Your task to perform on an android device: Set the phone to "Do not disturb". Image 0: 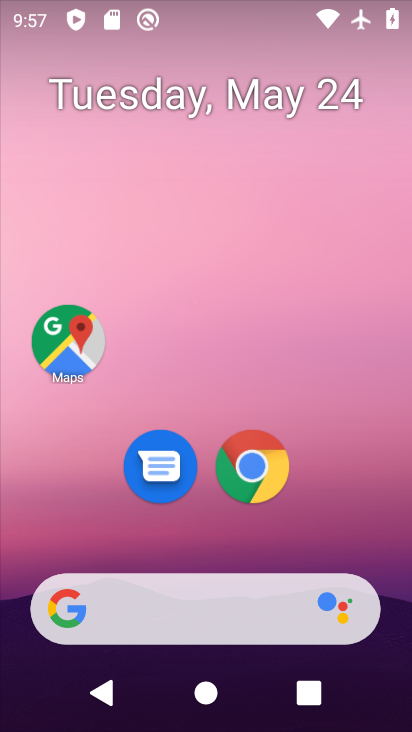
Step 0: drag from (190, 536) to (185, 0)
Your task to perform on an android device: Set the phone to "Do not disturb". Image 1: 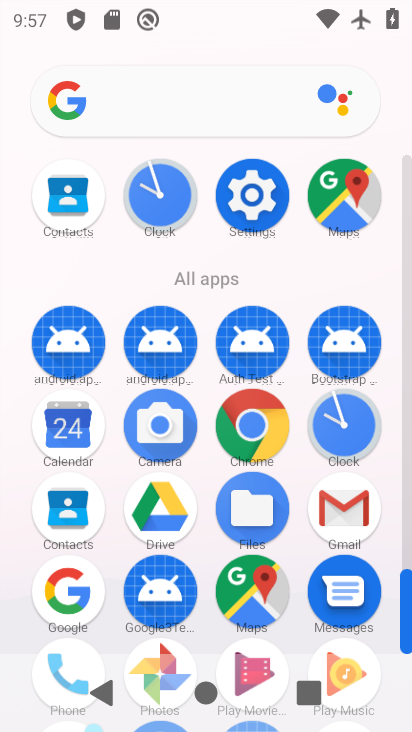
Step 1: click (257, 197)
Your task to perform on an android device: Set the phone to "Do not disturb". Image 2: 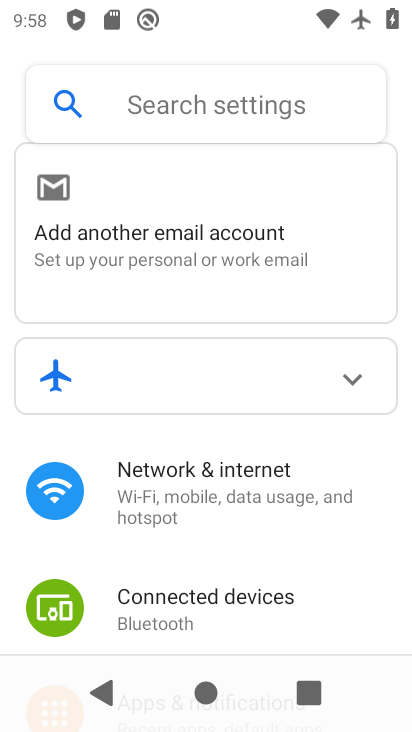
Step 2: drag from (177, 514) to (207, 182)
Your task to perform on an android device: Set the phone to "Do not disturb". Image 3: 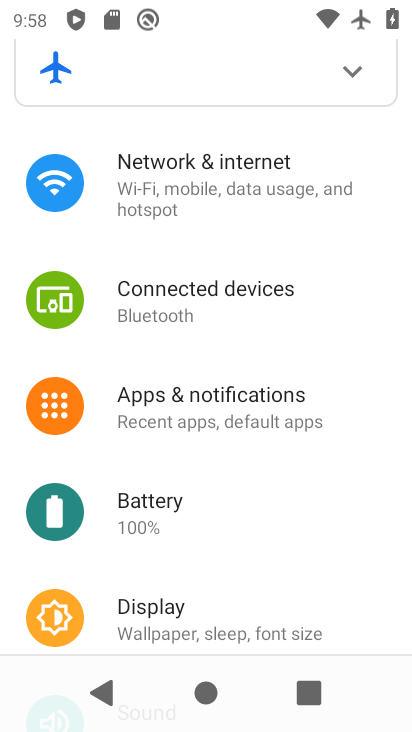
Step 3: drag from (180, 531) to (249, 288)
Your task to perform on an android device: Set the phone to "Do not disturb". Image 4: 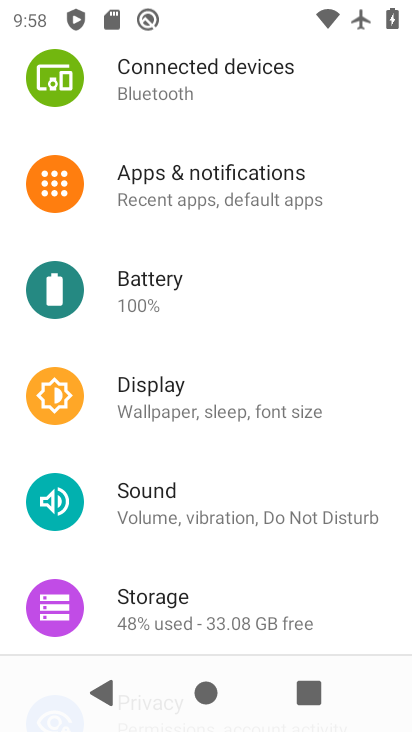
Step 4: click (178, 505)
Your task to perform on an android device: Set the phone to "Do not disturb". Image 5: 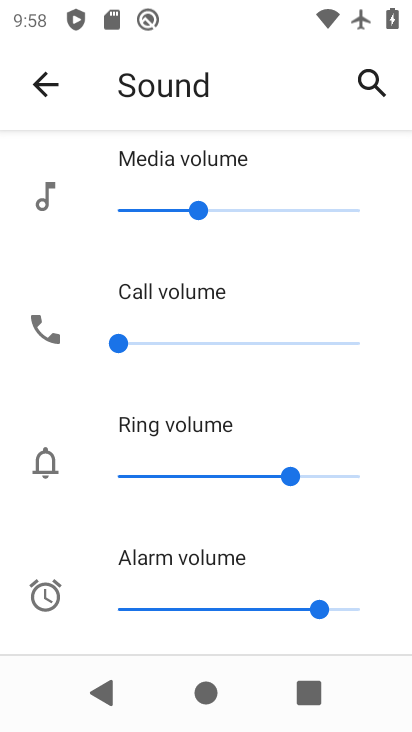
Step 5: drag from (187, 533) to (222, 209)
Your task to perform on an android device: Set the phone to "Do not disturb". Image 6: 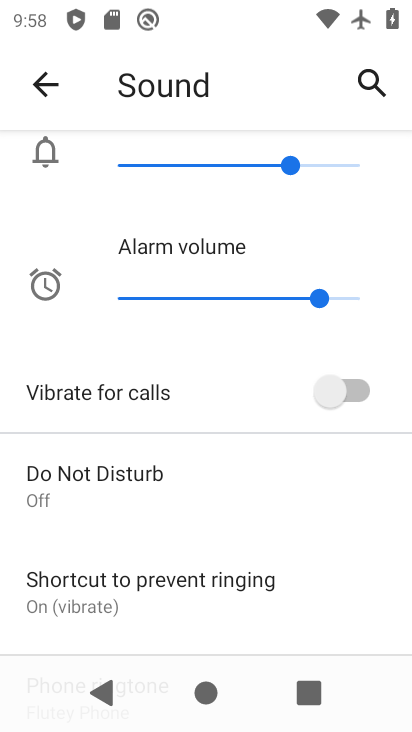
Step 6: click (161, 512)
Your task to perform on an android device: Set the phone to "Do not disturb". Image 7: 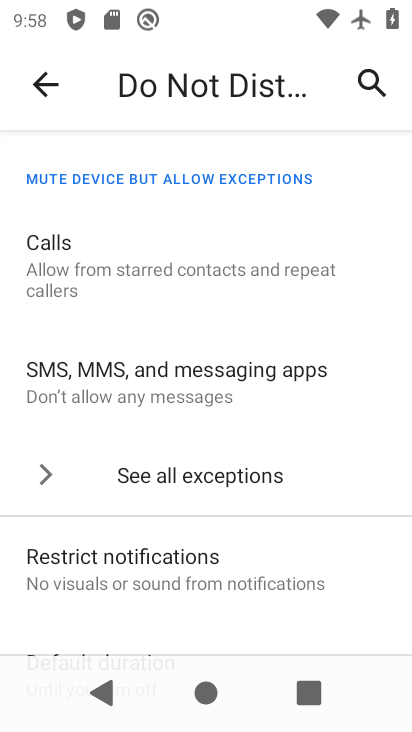
Step 7: drag from (169, 534) to (236, 107)
Your task to perform on an android device: Set the phone to "Do not disturb". Image 8: 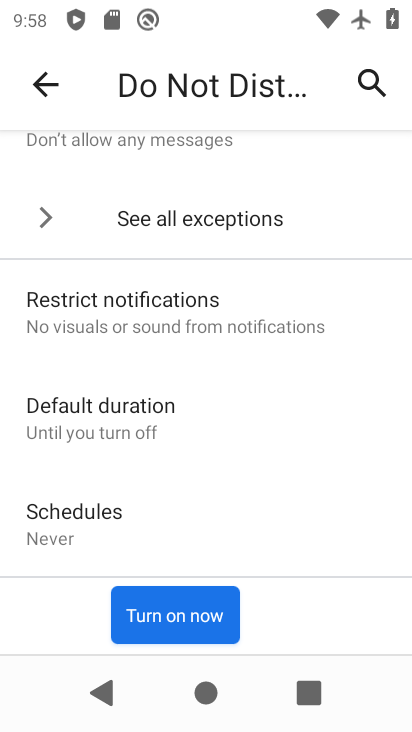
Step 8: click (181, 627)
Your task to perform on an android device: Set the phone to "Do not disturb". Image 9: 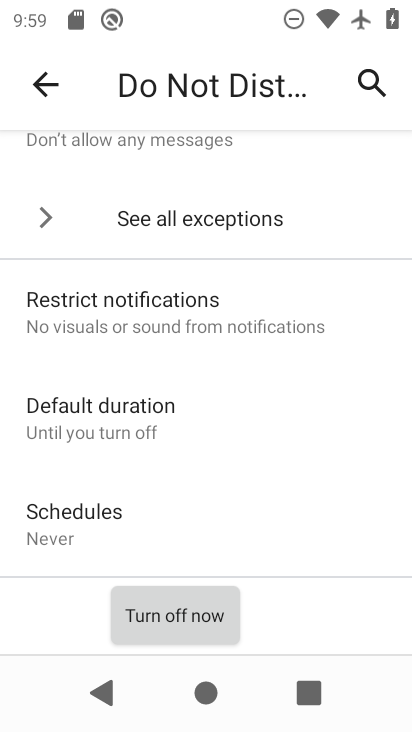
Step 9: task complete